Your task to perform on an android device: Go to display settings Image 0: 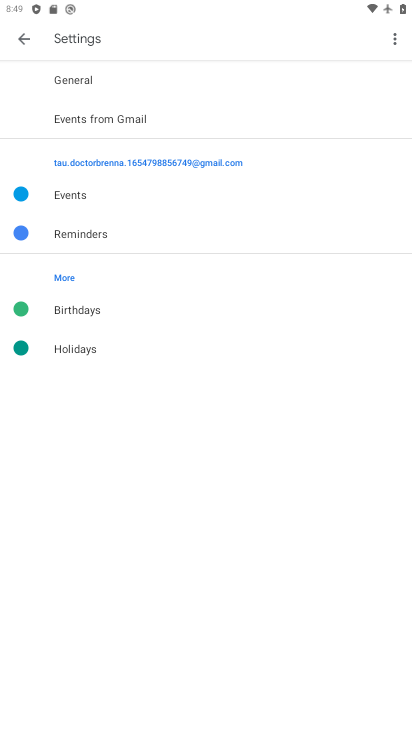
Step 0: press back button
Your task to perform on an android device: Go to display settings Image 1: 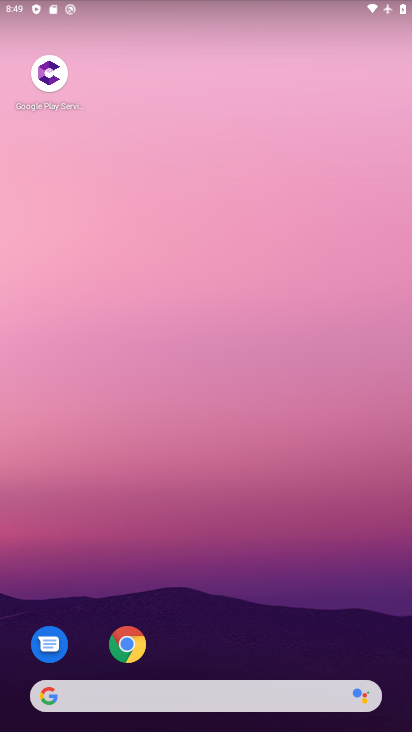
Step 1: drag from (271, 577) to (302, 12)
Your task to perform on an android device: Go to display settings Image 2: 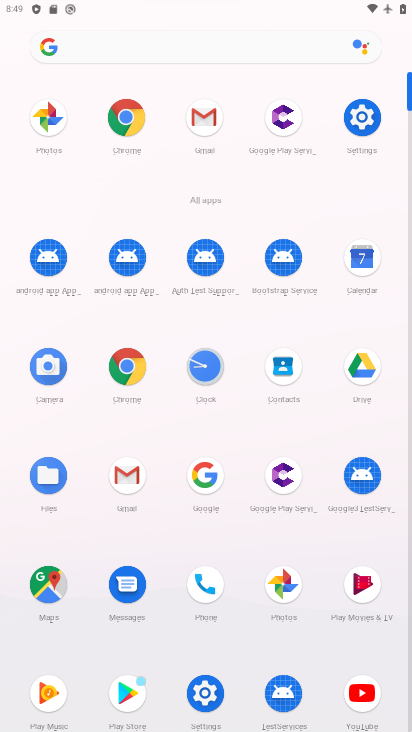
Step 2: click (358, 127)
Your task to perform on an android device: Go to display settings Image 3: 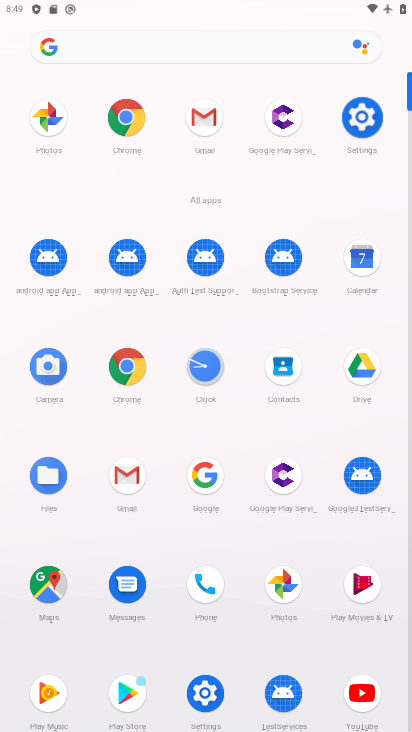
Step 3: click (361, 125)
Your task to perform on an android device: Go to display settings Image 4: 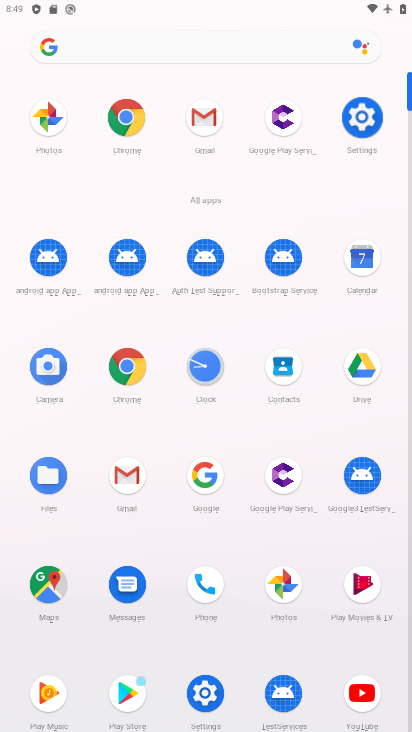
Step 4: click (367, 125)
Your task to perform on an android device: Go to display settings Image 5: 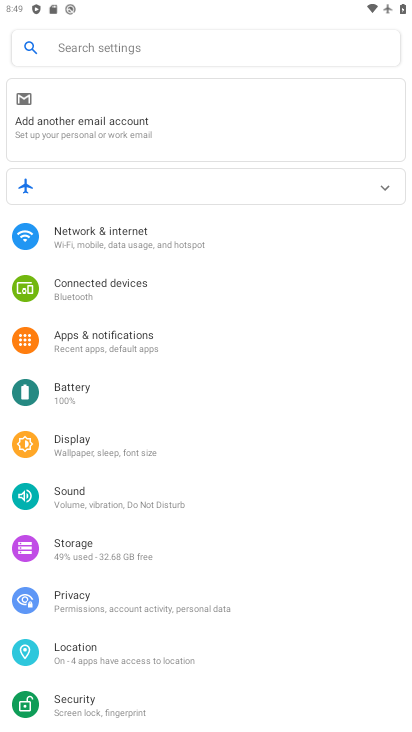
Step 5: click (63, 444)
Your task to perform on an android device: Go to display settings Image 6: 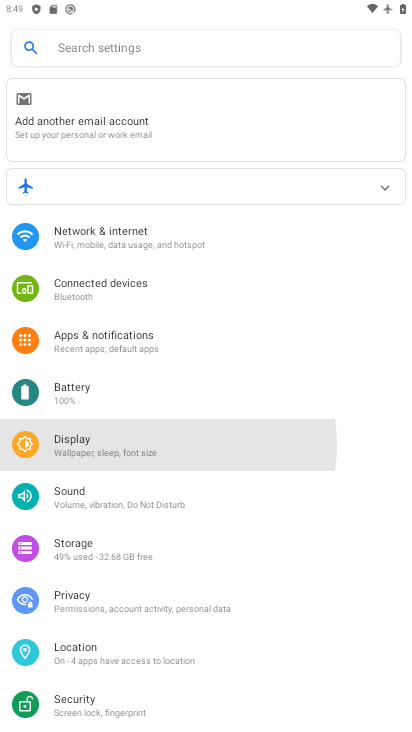
Step 6: click (62, 444)
Your task to perform on an android device: Go to display settings Image 7: 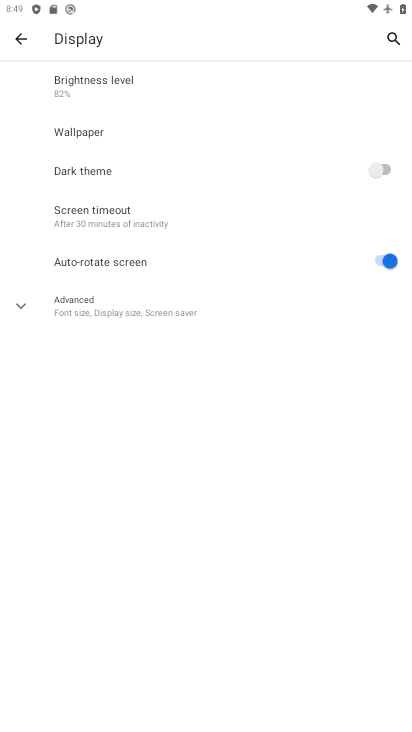
Step 7: task complete